Your task to perform on an android device: See recent photos Image 0: 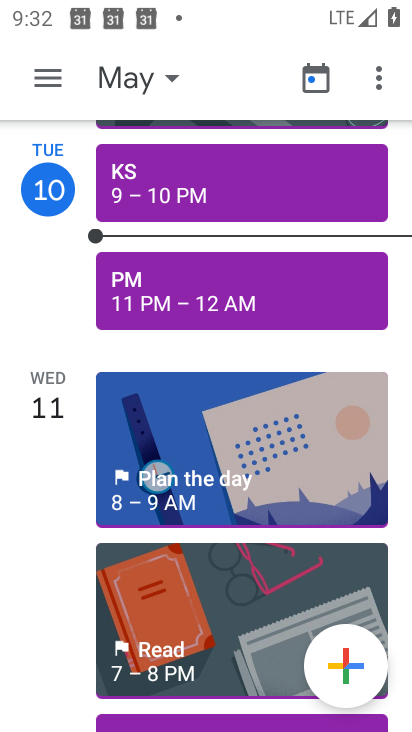
Step 0: press back button
Your task to perform on an android device: See recent photos Image 1: 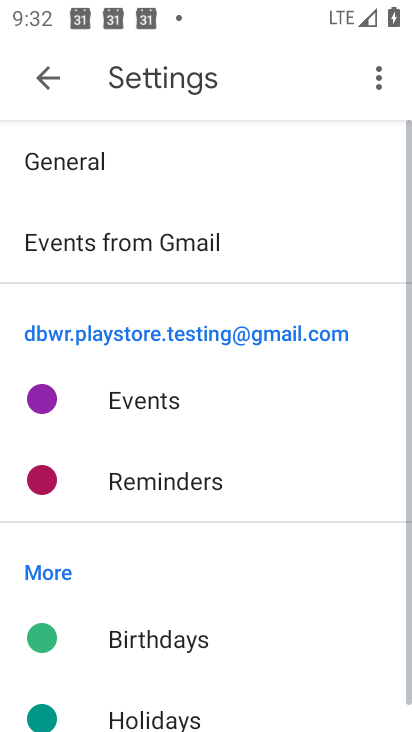
Step 1: press back button
Your task to perform on an android device: See recent photos Image 2: 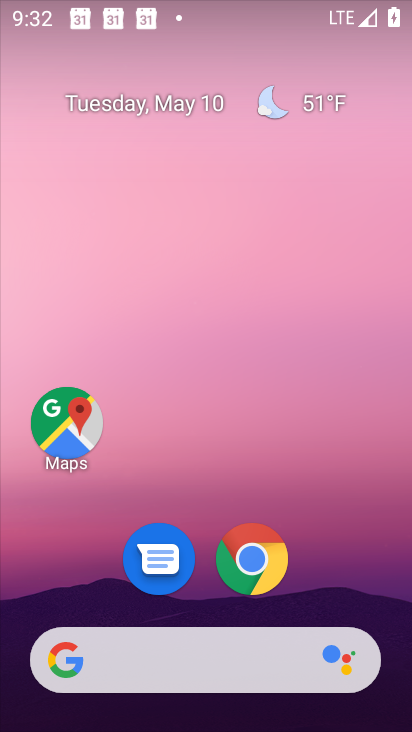
Step 2: drag from (334, 574) to (245, 135)
Your task to perform on an android device: See recent photos Image 3: 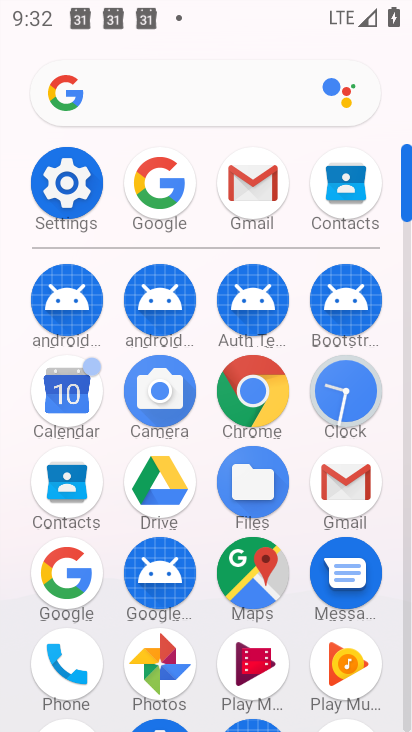
Step 3: drag from (207, 527) to (199, 257)
Your task to perform on an android device: See recent photos Image 4: 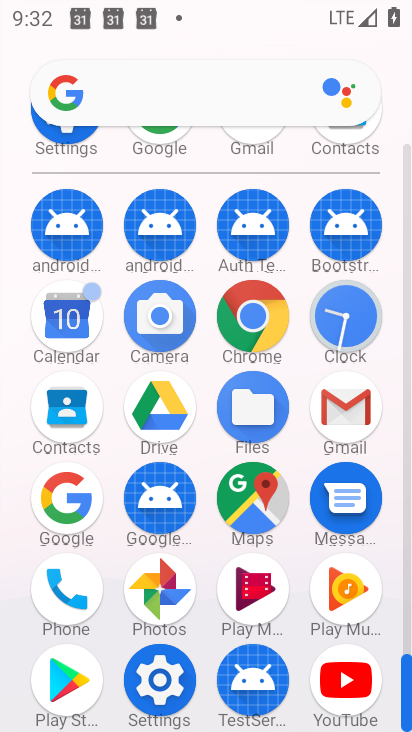
Step 4: click (160, 587)
Your task to perform on an android device: See recent photos Image 5: 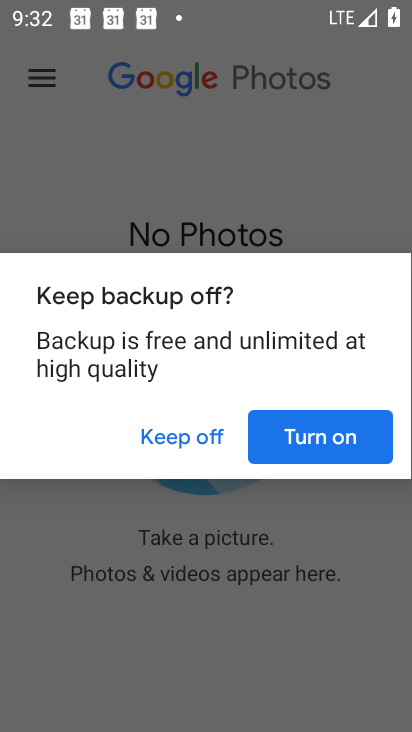
Step 5: click (197, 437)
Your task to perform on an android device: See recent photos Image 6: 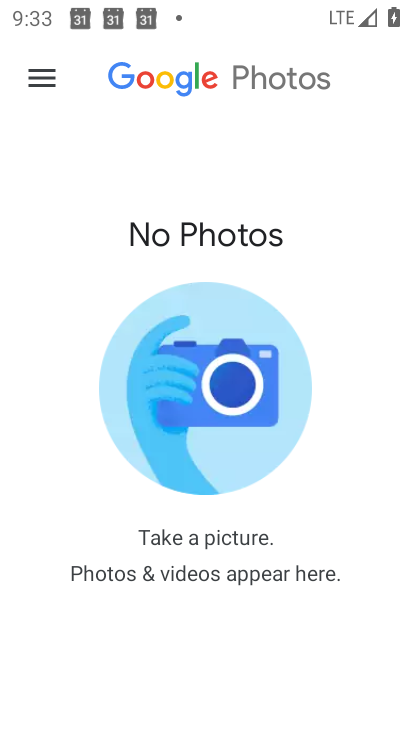
Step 6: click (44, 81)
Your task to perform on an android device: See recent photos Image 7: 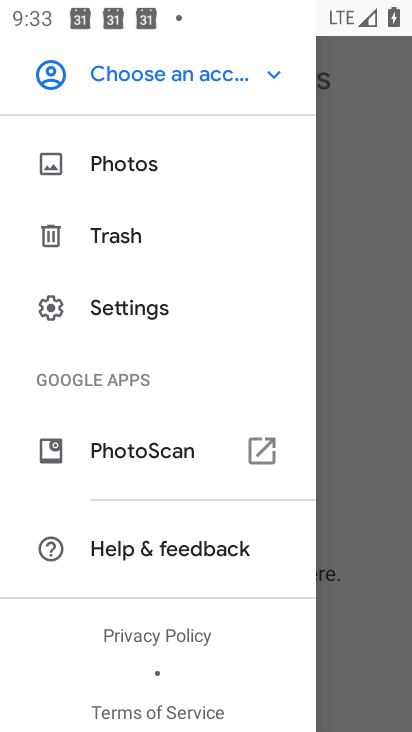
Step 7: click (133, 174)
Your task to perform on an android device: See recent photos Image 8: 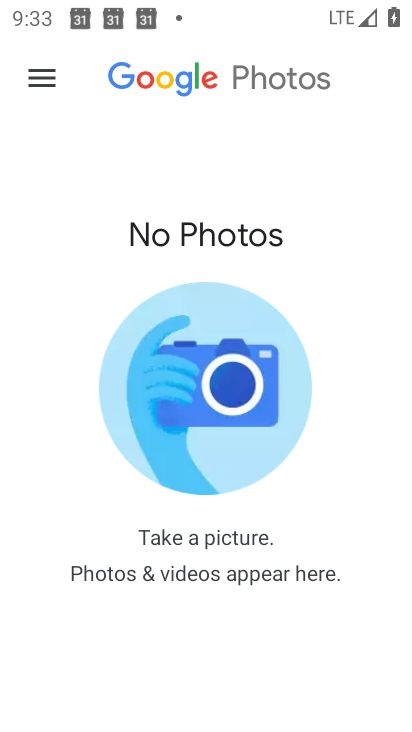
Step 8: click (48, 81)
Your task to perform on an android device: See recent photos Image 9: 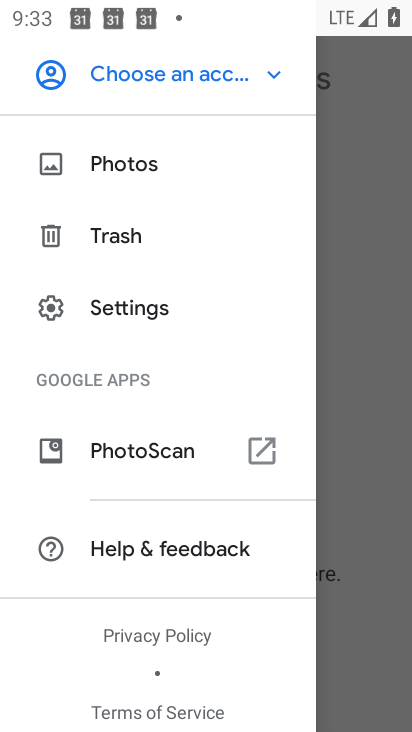
Step 9: click (101, 154)
Your task to perform on an android device: See recent photos Image 10: 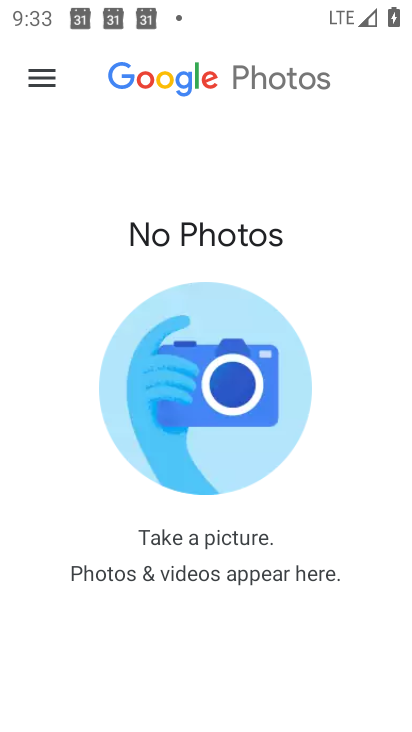
Step 10: click (34, 85)
Your task to perform on an android device: See recent photos Image 11: 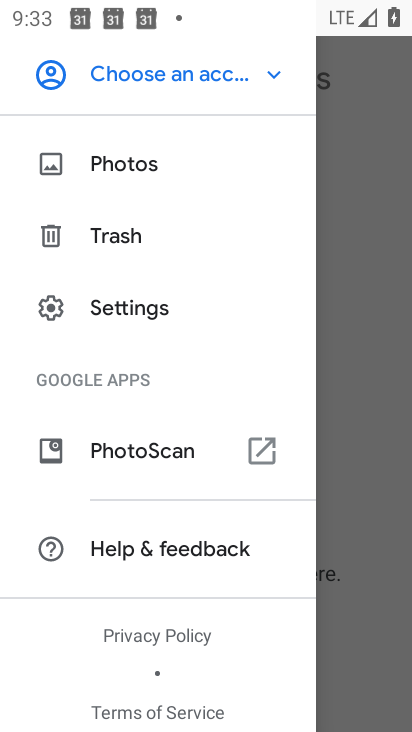
Step 11: click (127, 161)
Your task to perform on an android device: See recent photos Image 12: 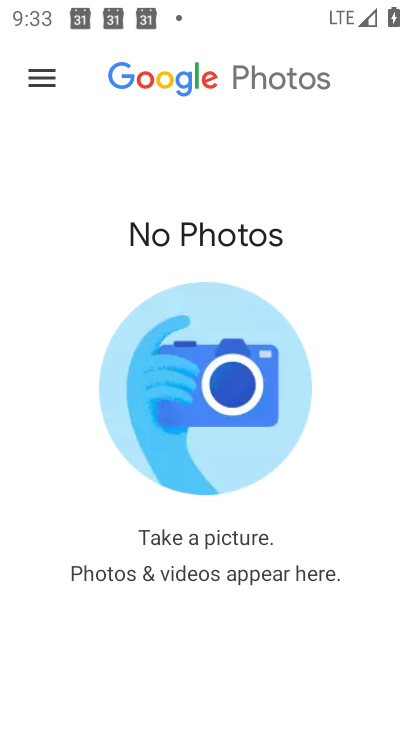
Step 12: click (56, 74)
Your task to perform on an android device: See recent photos Image 13: 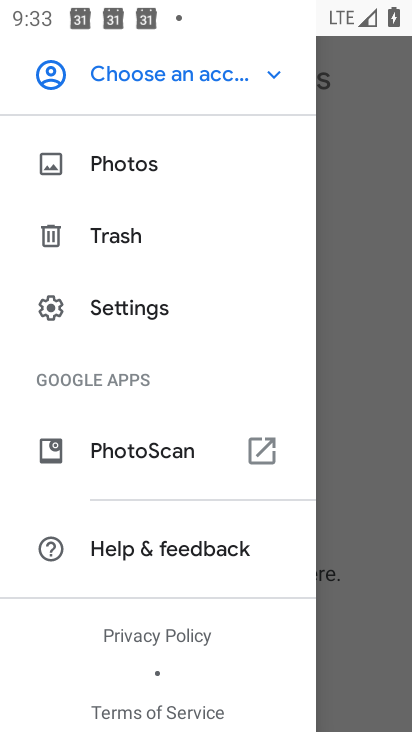
Step 13: click (128, 311)
Your task to perform on an android device: See recent photos Image 14: 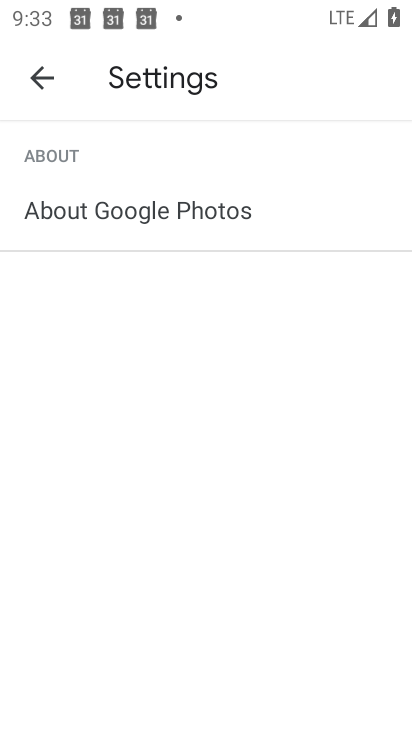
Step 14: press back button
Your task to perform on an android device: See recent photos Image 15: 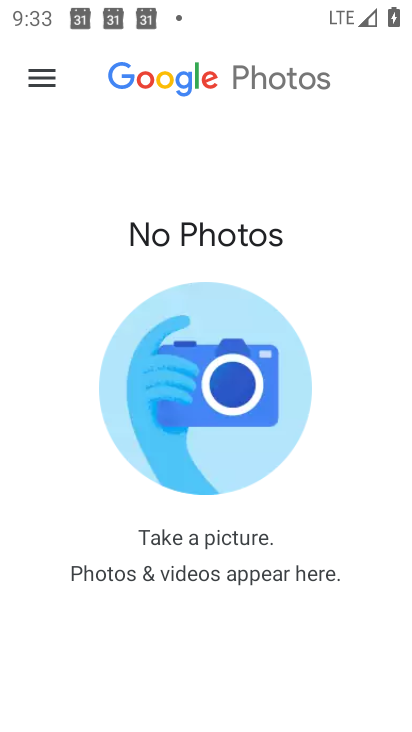
Step 15: click (34, 82)
Your task to perform on an android device: See recent photos Image 16: 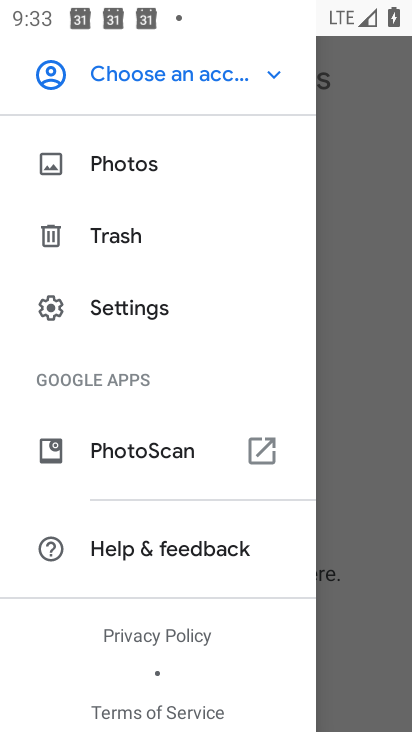
Step 16: click (153, 166)
Your task to perform on an android device: See recent photos Image 17: 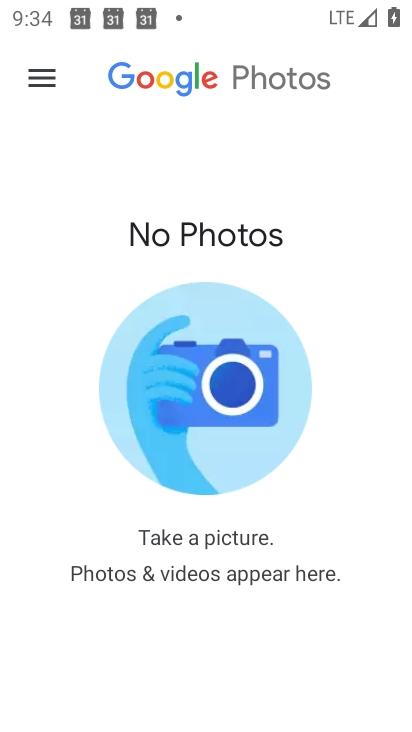
Step 17: click (50, 77)
Your task to perform on an android device: See recent photos Image 18: 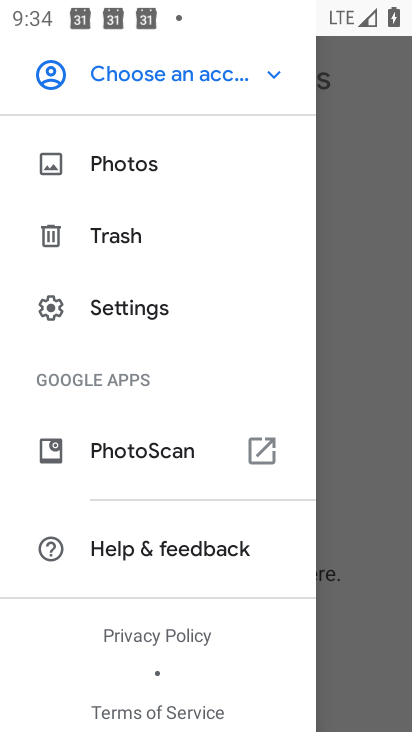
Step 18: click (100, 231)
Your task to perform on an android device: See recent photos Image 19: 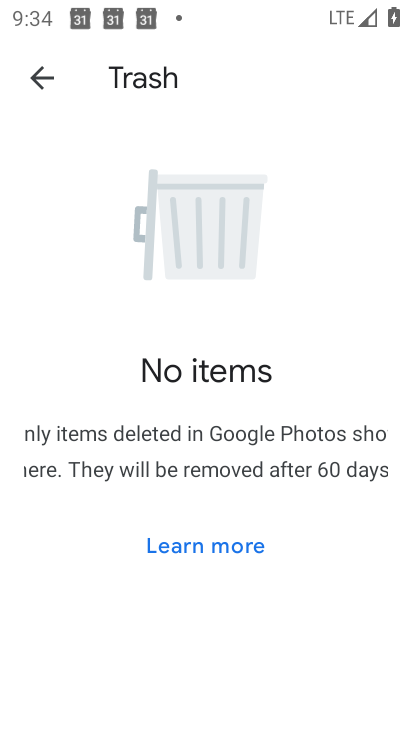
Step 19: press back button
Your task to perform on an android device: See recent photos Image 20: 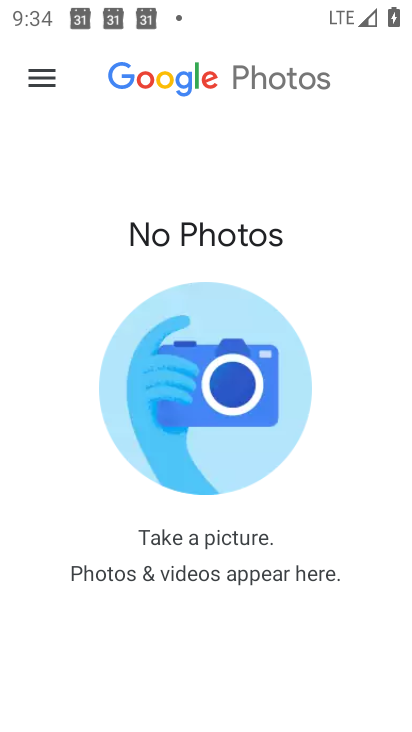
Step 20: press back button
Your task to perform on an android device: See recent photos Image 21: 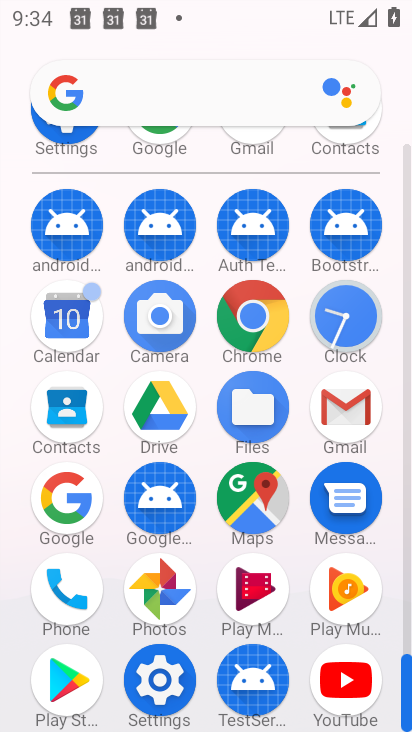
Step 21: click (154, 588)
Your task to perform on an android device: See recent photos Image 22: 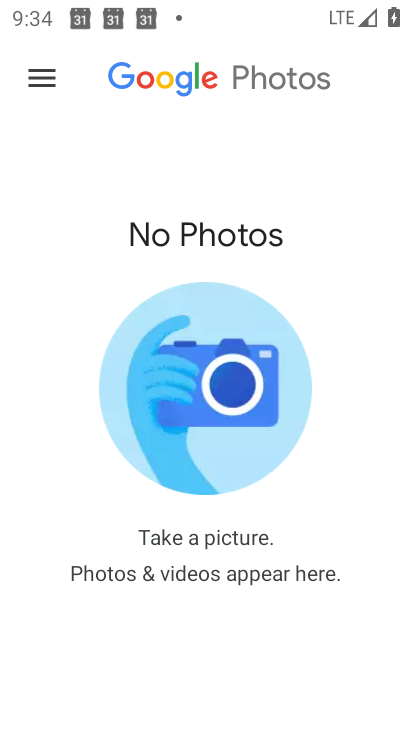
Step 22: click (41, 76)
Your task to perform on an android device: See recent photos Image 23: 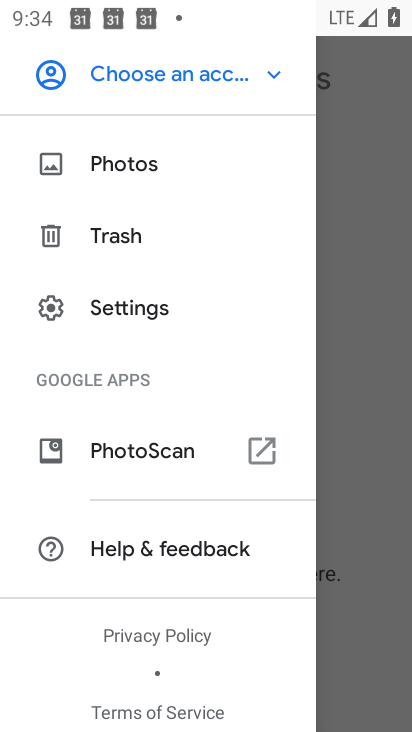
Step 23: click (133, 75)
Your task to perform on an android device: See recent photos Image 24: 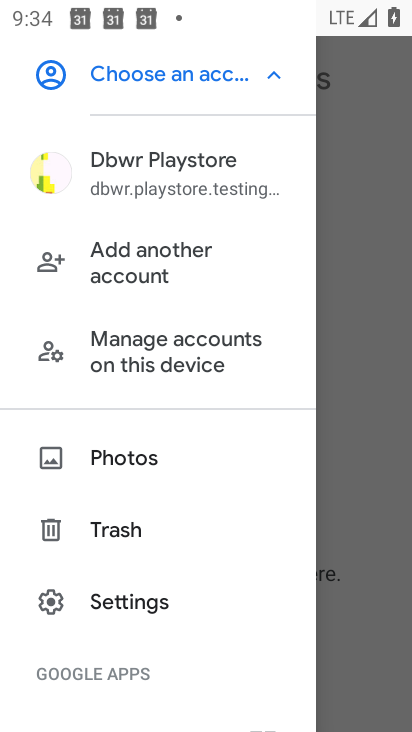
Step 24: click (130, 464)
Your task to perform on an android device: See recent photos Image 25: 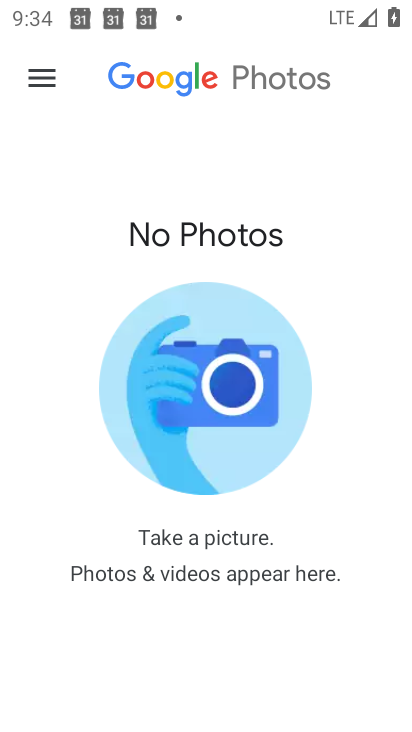
Step 25: click (47, 76)
Your task to perform on an android device: See recent photos Image 26: 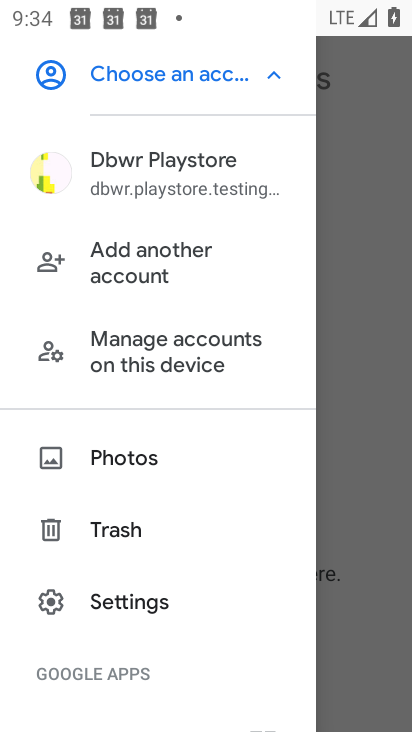
Step 26: drag from (161, 501) to (236, 278)
Your task to perform on an android device: See recent photos Image 27: 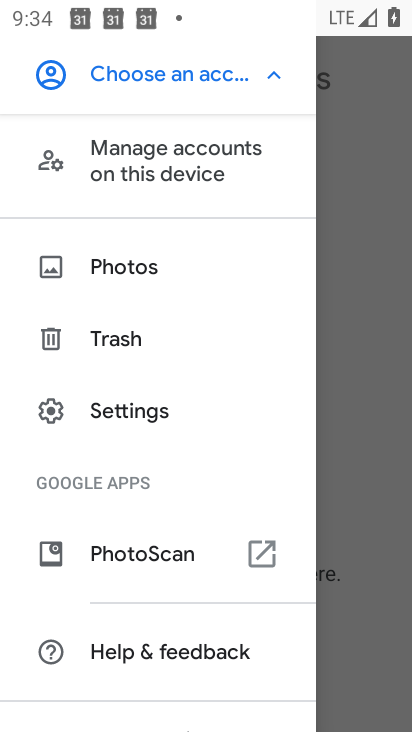
Step 27: drag from (166, 522) to (212, 294)
Your task to perform on an android device: See recent photos Image 28: 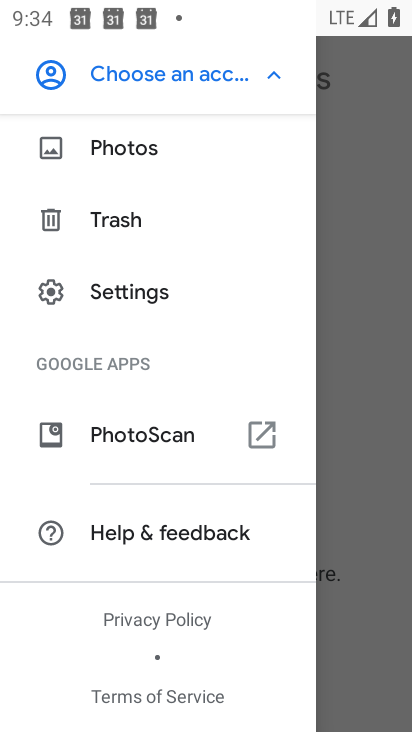
Step 28: drag from (106, 624) to (184, 318)
Your task to perform on an android device: See recent photos Image 29: 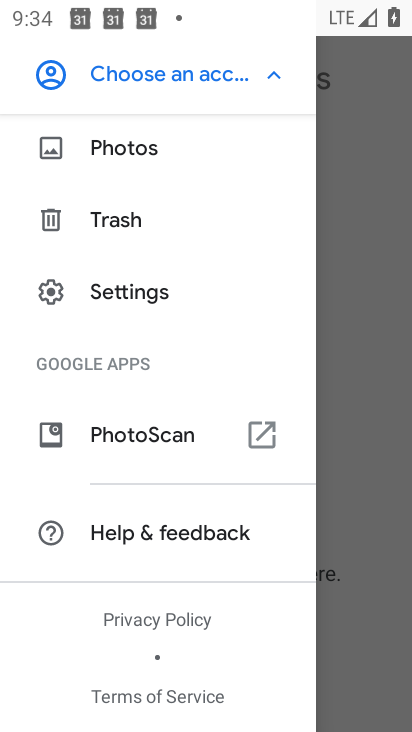
Step 29: click (350, 223)
Your task to perform on an android device: See recent photos Image 30: 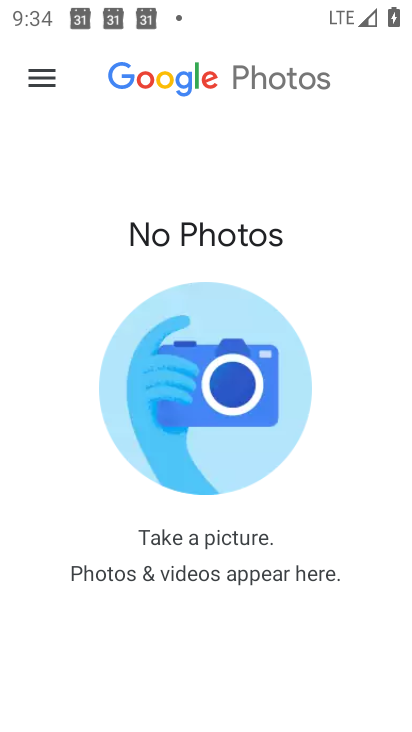
Step 30: task complete